Your task to perform on an android device: Go to Google maps Image 0: 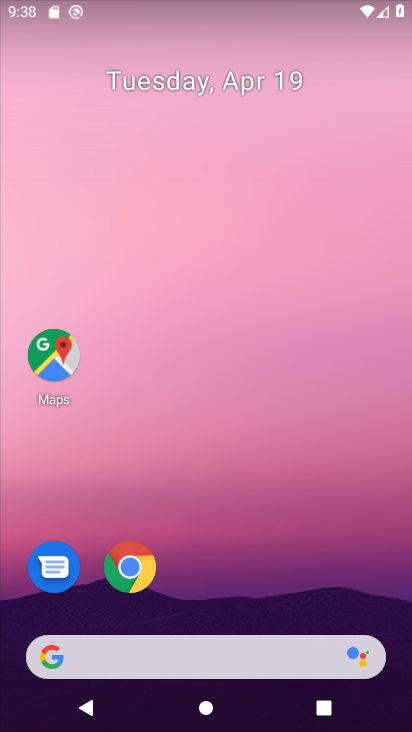
Step 0: drag from (240, 610) to (263, 37)
Your task to perform on an android device: Go to Google maps Image 1: 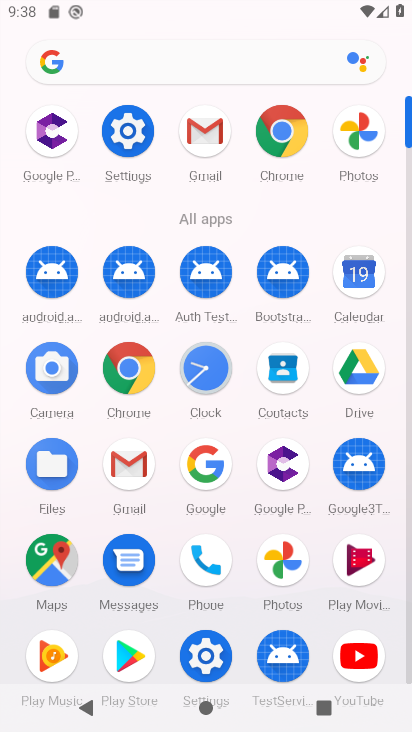
Step 1: click (42, 565)
Your task to perform on an android device: Go to Google maps Image 2: 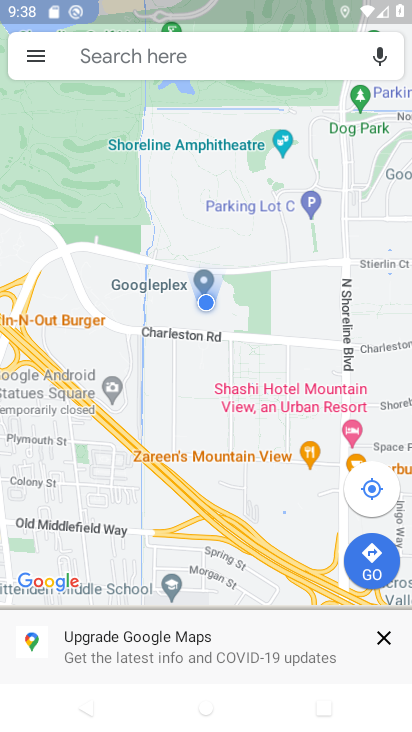
Step 2: task complete